Your task to perform on an android device: change timer sound Image 0: 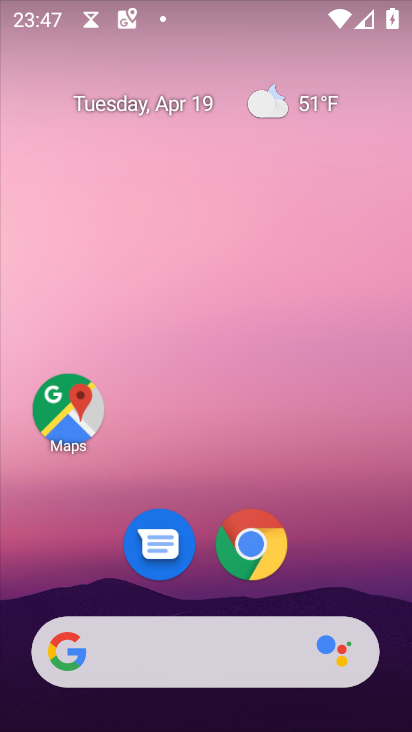
Step 0: drag from (350, 581) to (322, 96)
Your task to perform on an android device: change timer sound Image 1: 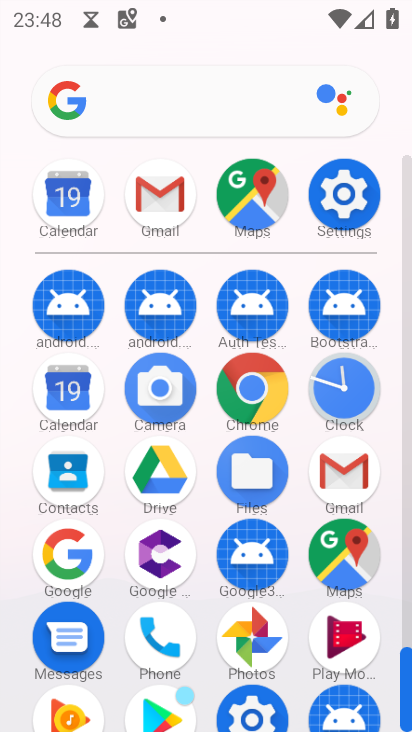
Step 1: click (345, 376)
Your task to perform on an android device: change timer sound Image 2: 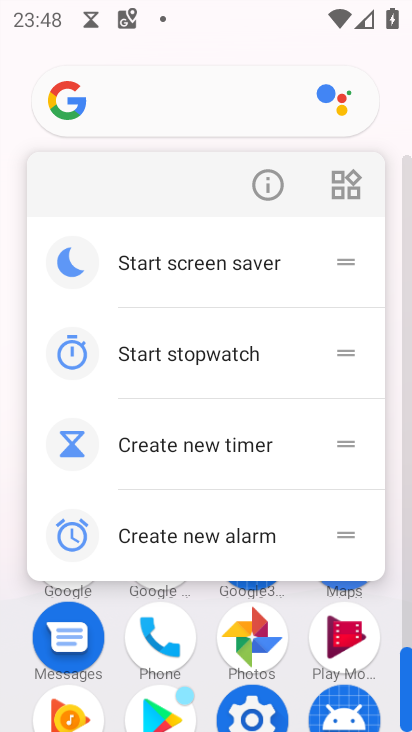
Step 2: click (405, 390)
Your task to perform on an android device: change timer sound Image 3: 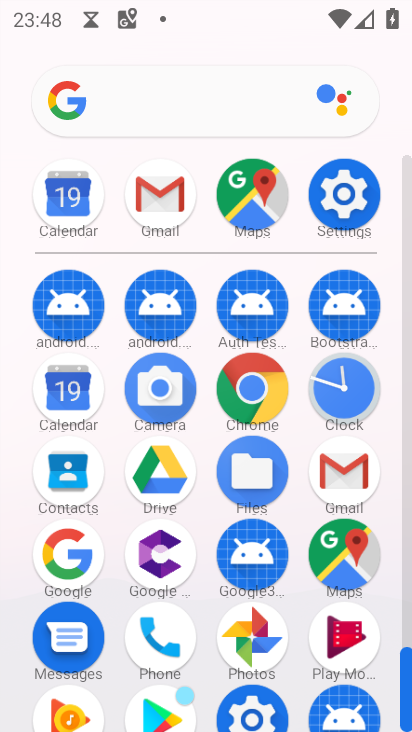
Step 3: click (354, 397)
Your task to perform on an android device: change timer sound Image 4: 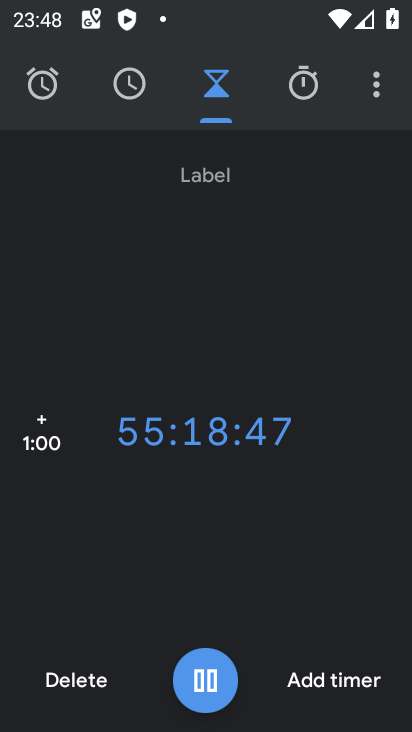
Step 4: click (370, 97)
Your task to perform on an android device: change timer sound Image 5: 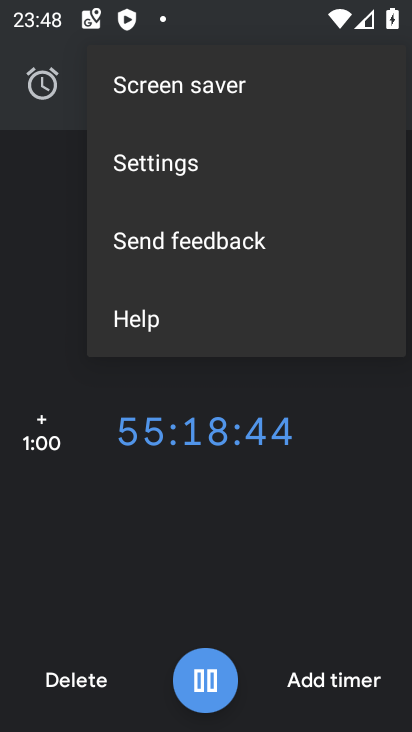
Step 5: click (301, 175)
Your task to perform on an android device: change timer sound Image 6: 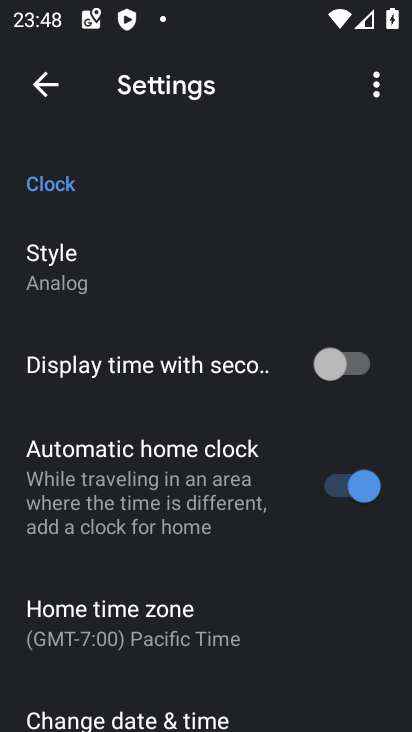
Step 6: drag from (139, 521) to (142, 442)
Your task to perform on an android device: change timer sound Image 7: 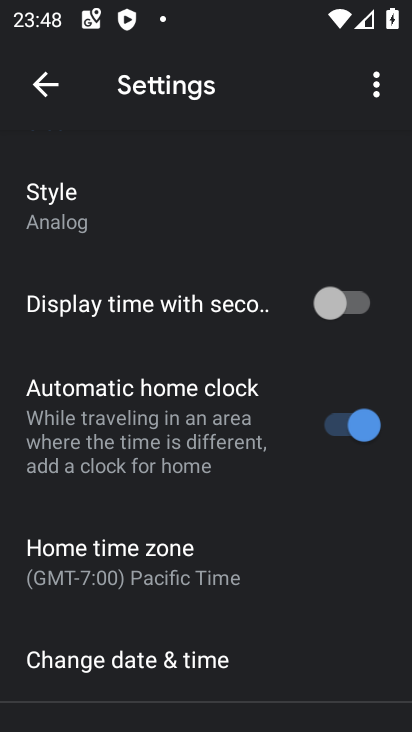
Step 7: drag from (178, 561) to (213, 436)
Your task to perform on an android device: change timer sound Image 8: 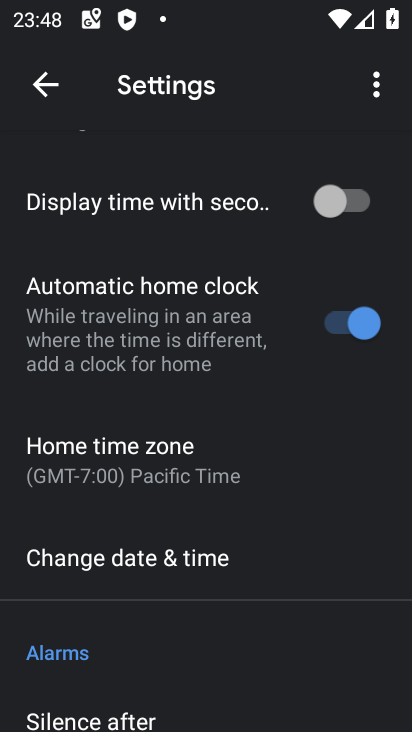
Step 8: drag from (195, 593) to (196, 496)
Your task to perform on an android device: change timer sound Image 9: 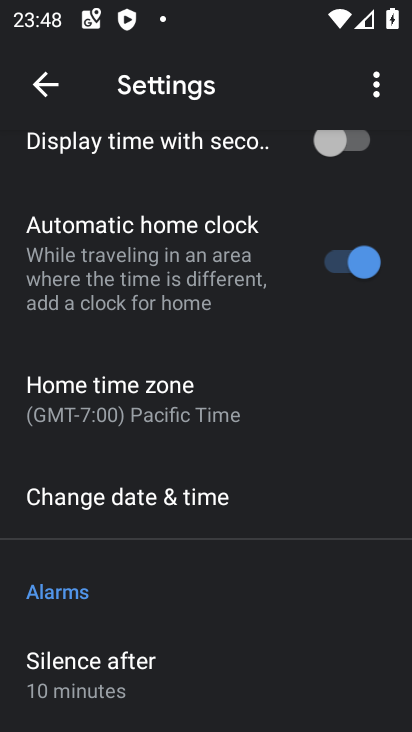
Step 9: drag from (190, 550) to (189, 450)
Your task to perform on an android device: change timer sound Image 10: 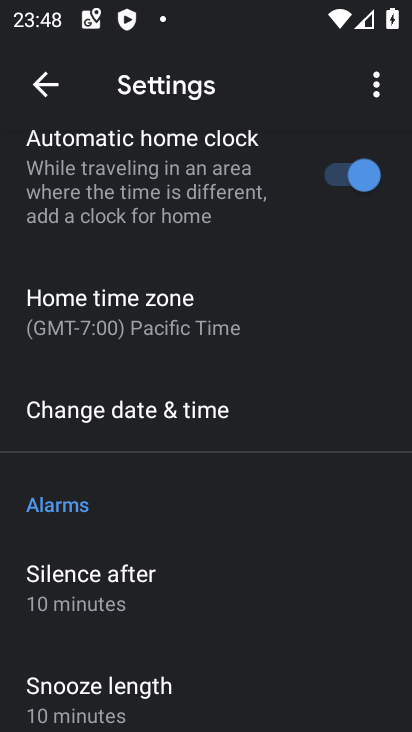
Step 10: drag from (193, 563) to (212, 475)
Your task to perform on an android device: change timer sound Image 11: 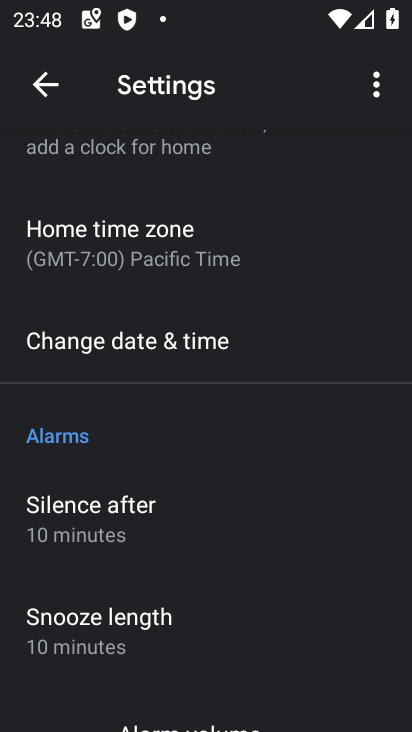
Step 11: drag from (235, 596) to (257, 523)
Your task to perform on an android device: change timer sound Image 12: 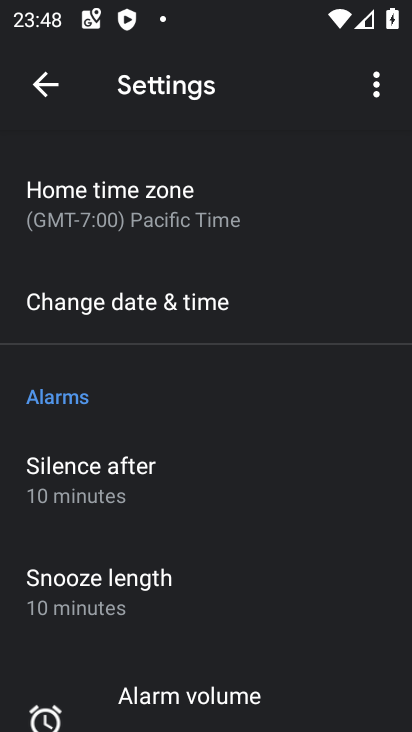
Step 12: drag from (238, 612) to (237, 504)
Your task to perform on an android device: change timer sound Image 13: 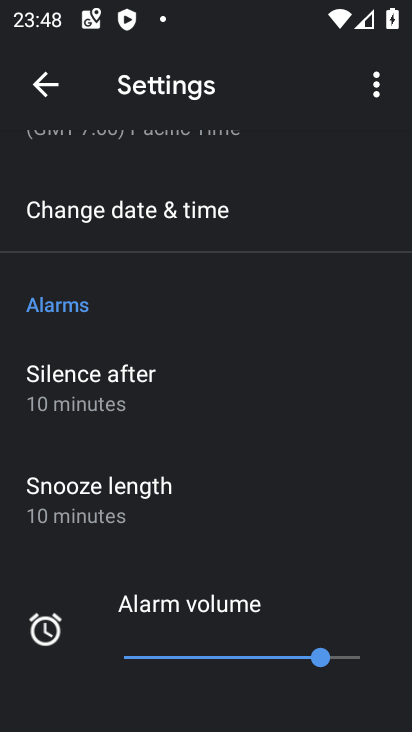
Step 13: drag from (181, 539) to (181, 415)
Your task to perform on an android device: change timer sound Image 14: 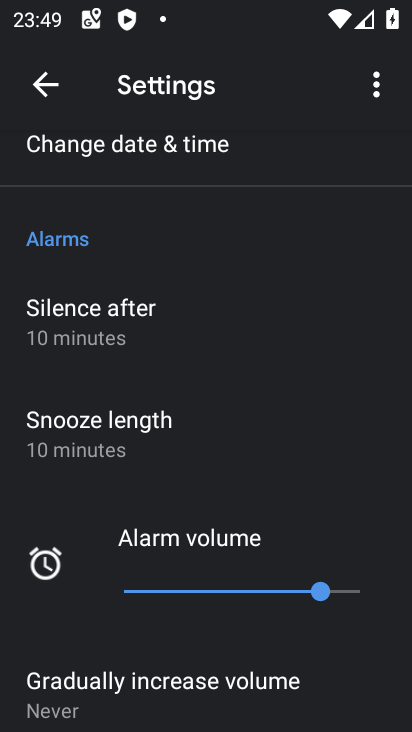
Step 14: drag from (194, 552) to (220, 456)
Your task to perform on an android device: change timer sound Image 15: 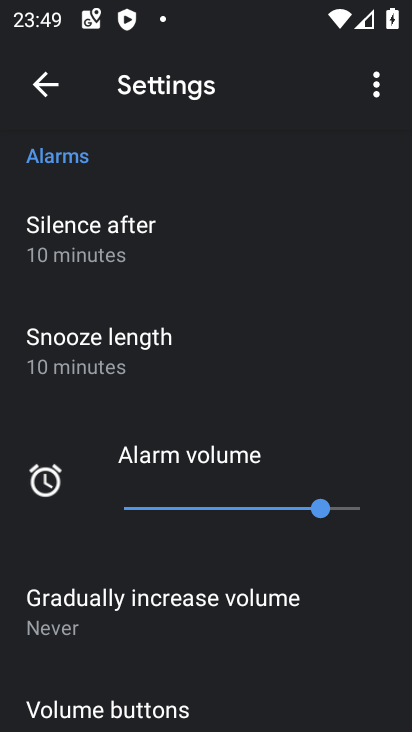
Step 15: drag from (173, 612) to (185, 517)
Your task to perform on an android device: change timer sound Image 16: 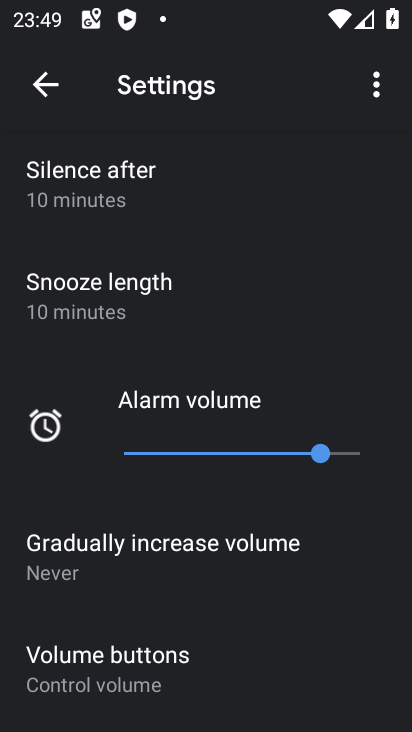
Step 16: drag from (192, 589) to (190, 495)
Your task to perform on an android device: change timer sound Image 17: 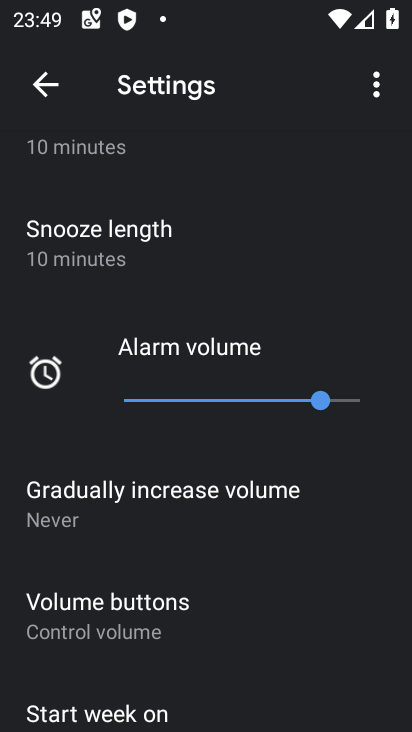
Step 17: drag from (205, 628) to (214, 515)
Your task to perform on an android device: change timer sound Image 18: 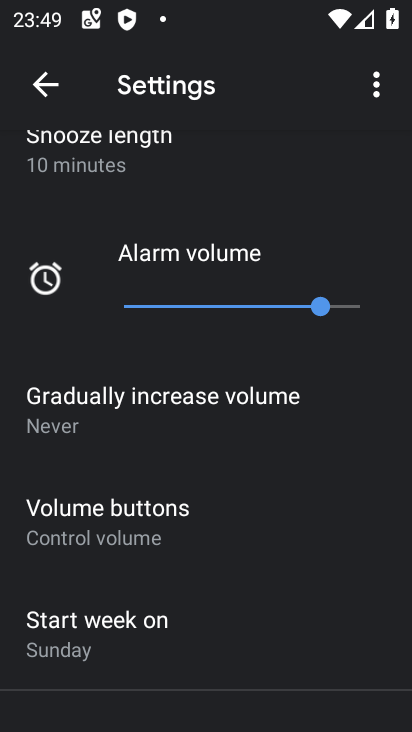
Step 18: drag from (252, 630) to (285, 527)
Your task to perform on an android device: change timer sound Image 19: 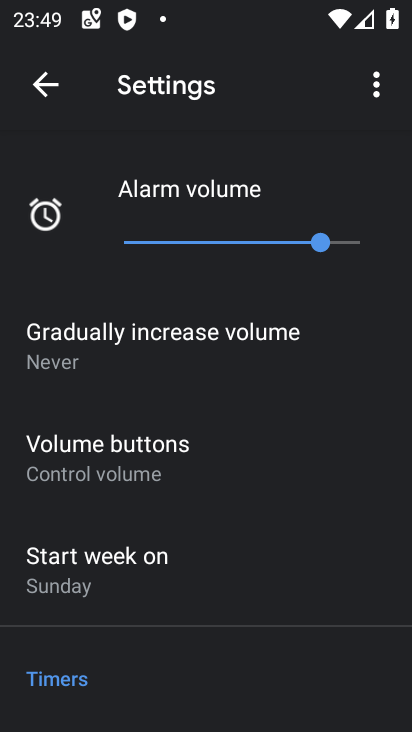
Step 19: drag from (291, 583) to (291, 462)
Your task to perform on an android device: change timer sound Image 20: 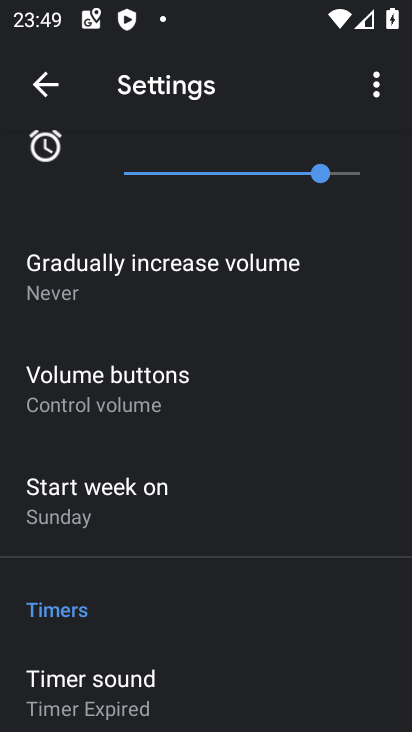
Step 20: drag from (260, 589) to (261, 462)
Your task to perform on an android device: change timer sound Image 21: 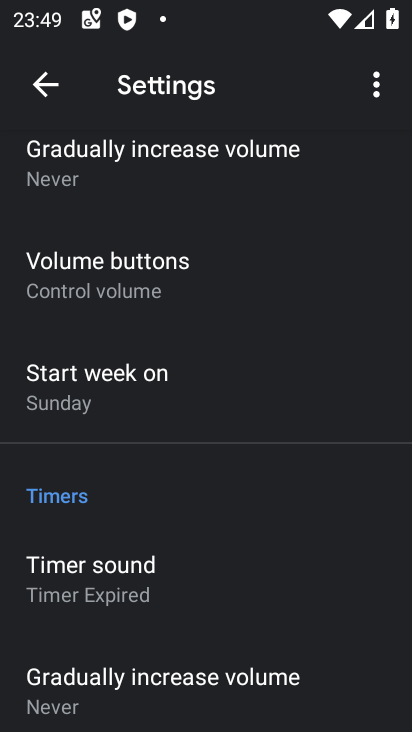
Step 21: click (195, 578)
Your task to perform on an android device: change timer sound Image 22: 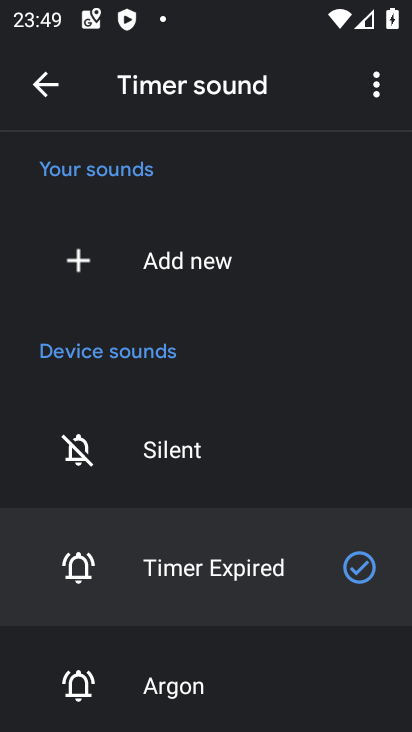
Step 22: click (202, 666)
Your task to perform on an android device: change timer sound Image 23: 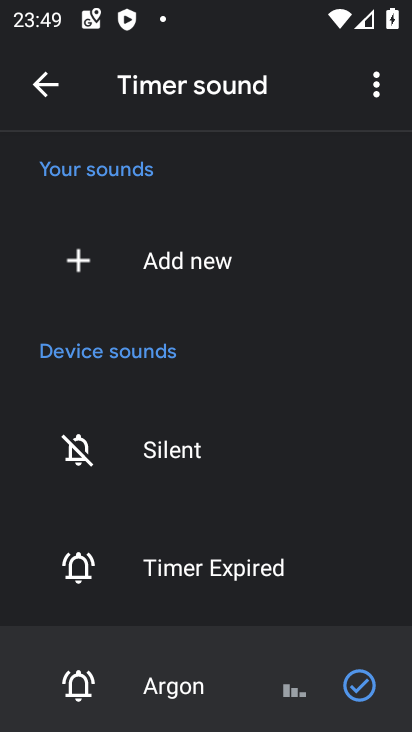
Step 23: task complete